Your task to perform on an android device: check the backup settings in the google photos Image 0: 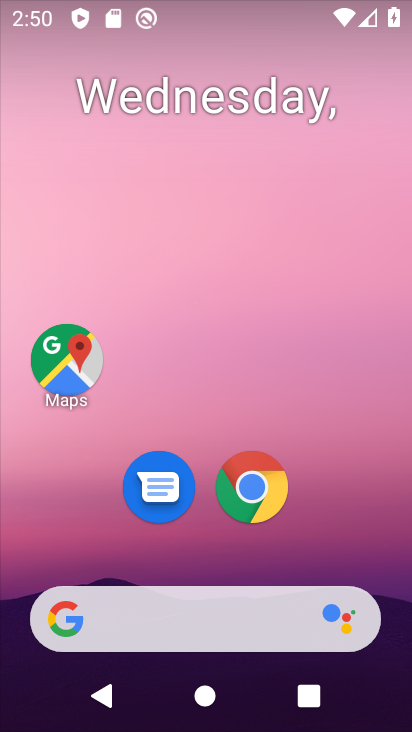
Step 0: drag from (336, 559) to (353, 370)
Your task to perform on an android device: check the backup settings in the google photos Image 1: 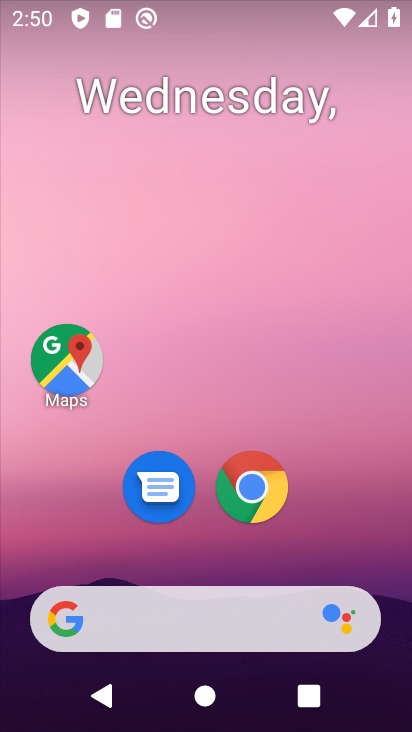
Step 1: drag from (378, 540) to (370, 143)
Your task to perform on an android device: check the backup settings in the google photos Image 2: 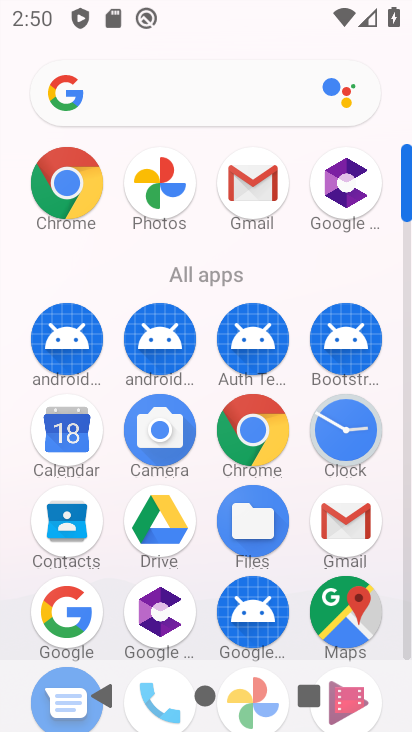
Step 2: drag from (395, 557) to (388, 299)
Your task to perform on an android device: check the backup settings in the google photos Image 3: 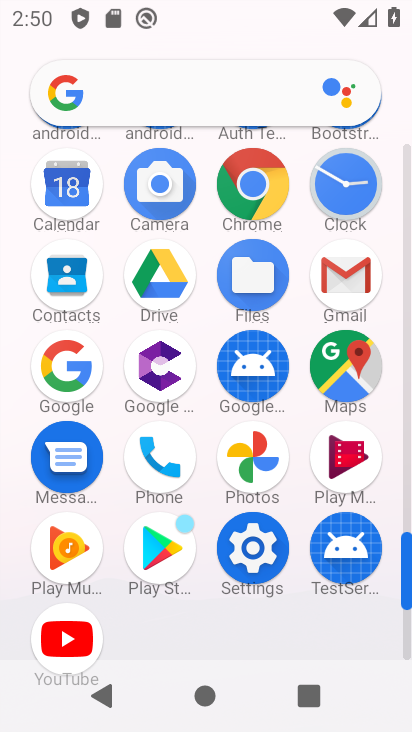
Step 3: click (264, 455)
Your task to perform on an android device: check the backup settings in the google photos Image 4: 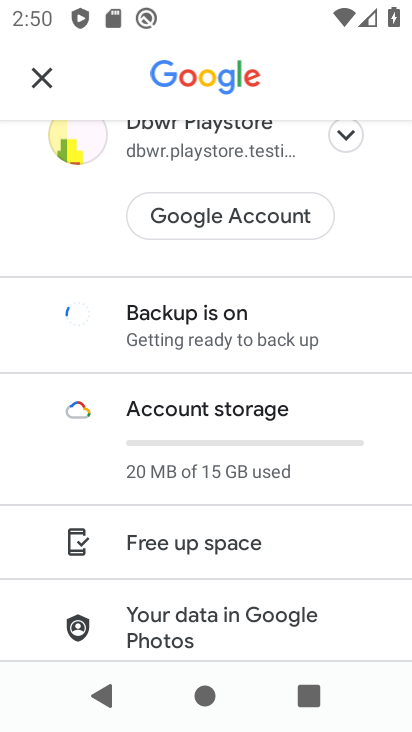
Step 4: drag from (353, 280) to (354, 423)
Your task to perform on an android device: check the backup settings in the google photos Image 5: 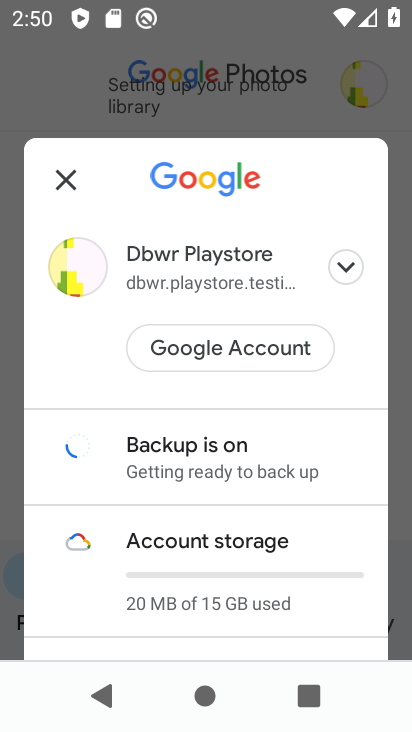
Step 5: drag from (335, 552) to (326, 381)
Your task to perform on an android device: check the backup settings in the google photos Image 6: 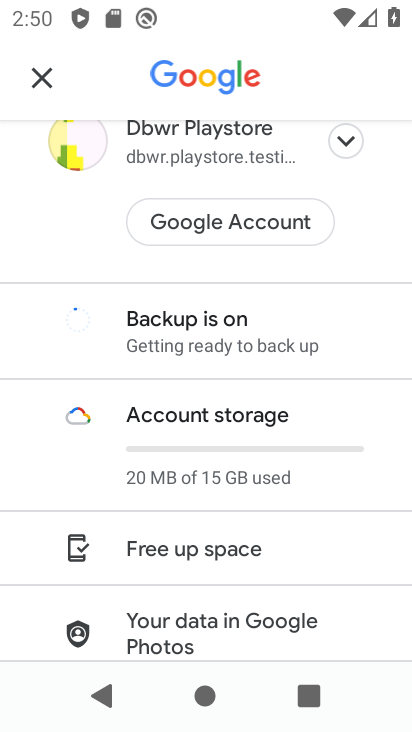
Step 6: drag from (325, 569) to (326, 398)
Your task to perform on an android device: check the backup settings in the google photos Image 7: 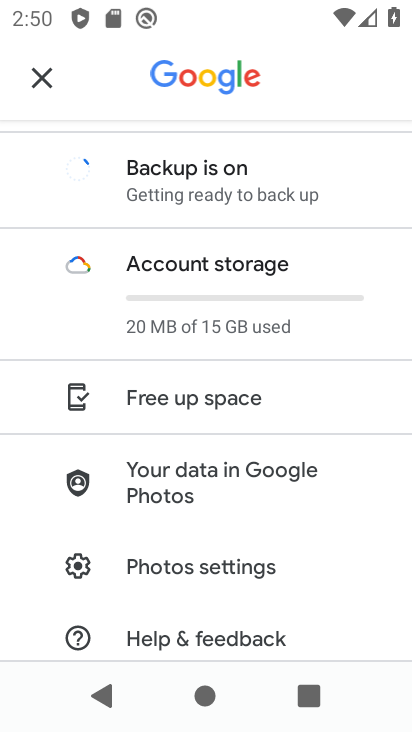
Step 7: click (272, 569)
Your task to perform on an android device: check the backup settings in the google photos Image 8: 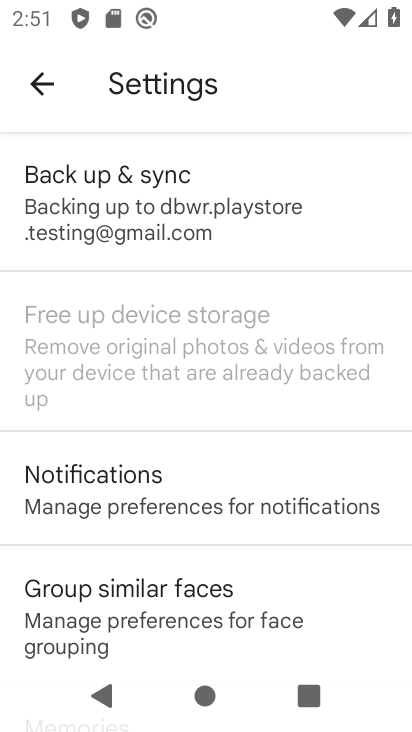
Step 8: click (182, 211)
Your task to perform on an android device: check the backup settings in the google photos Image 9: 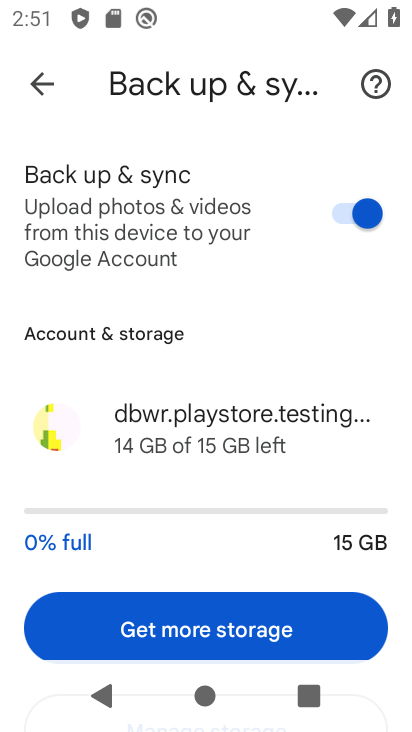
Step 9: task complete